Your task to perform on an android device: turn notification dots off Image 0: 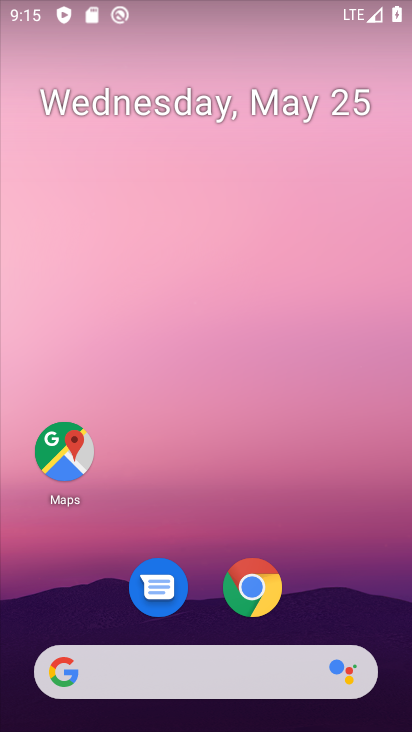
Step 0: drag from (186, 601) to (399, 671)
Your task to perform on an android device: turn notification dots off Image 1: 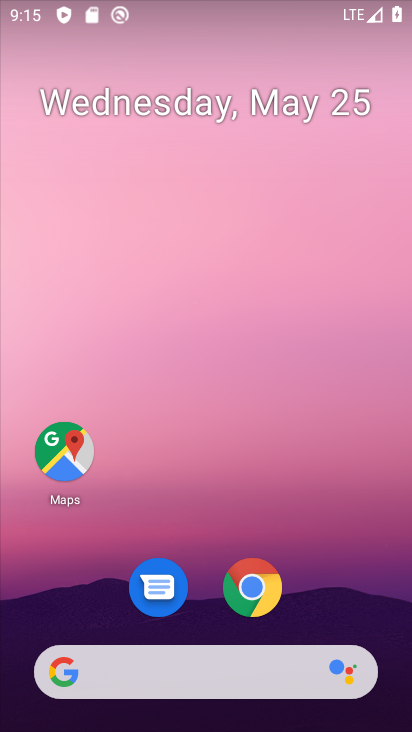
Step 1: drag from (200, 591) to (216, 53)
Your task to perform on an android device: turn notification dots off Image 2: 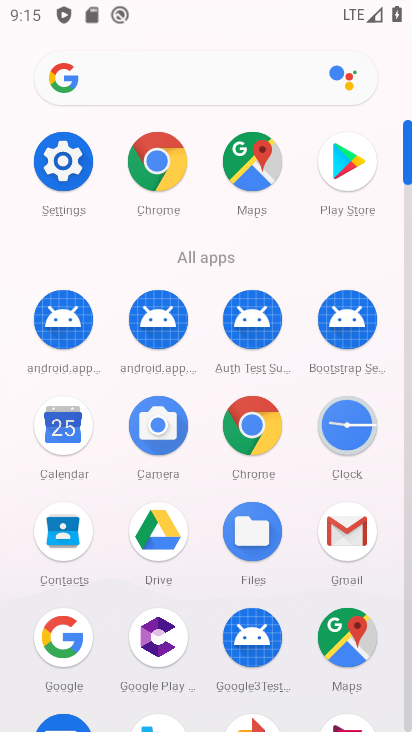
Step 2: click (51, 156)
Your task to perform on an android device: turn notification dots off Image 3: 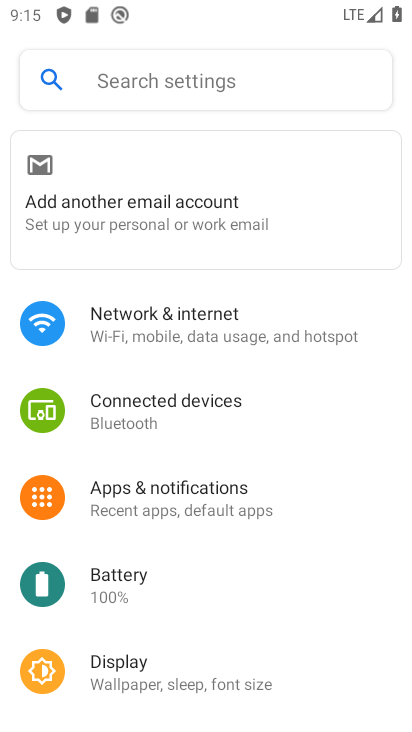
Step 3: click (201, 507)
Your task to perform on an android device: turn notification dots off Image 4: 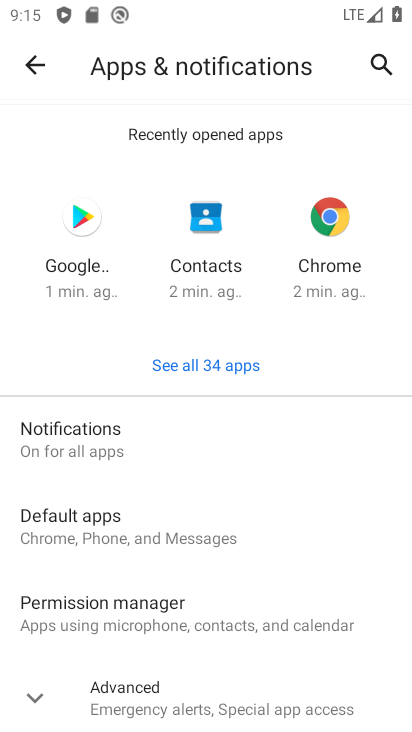
Step 4: drag from (237, 640) to (229, 428)
Your task to perform on an android device: turn notification dots off Image 5: 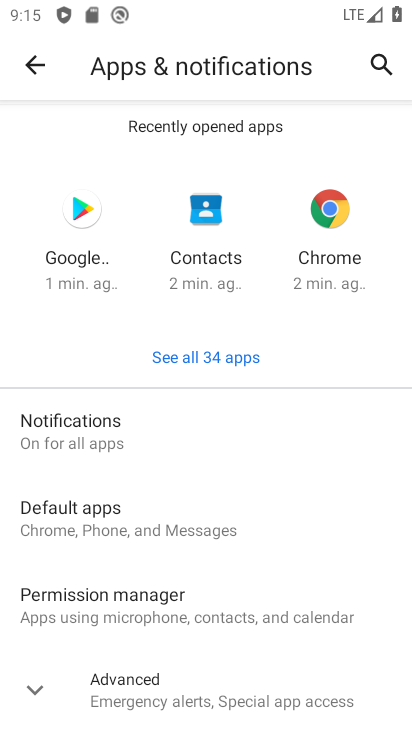
Step 5: click (132, 424)
Your task to perform on an android device: turn notification dots off Image 6: 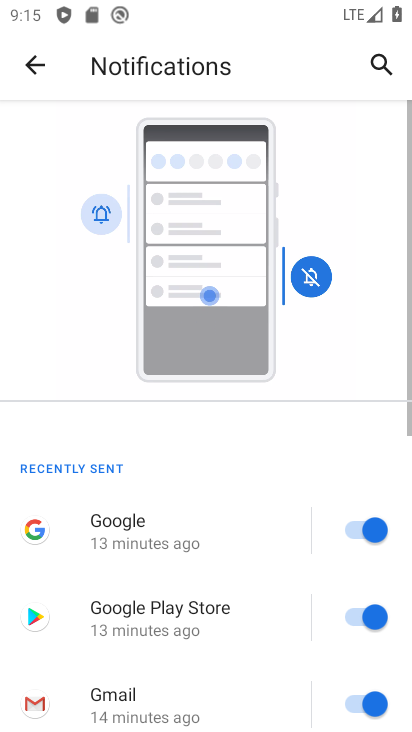
Step 6: drag from (156, 628) to (318, 95)
Your task to perform on an android device: turn notification dots off Image 7: 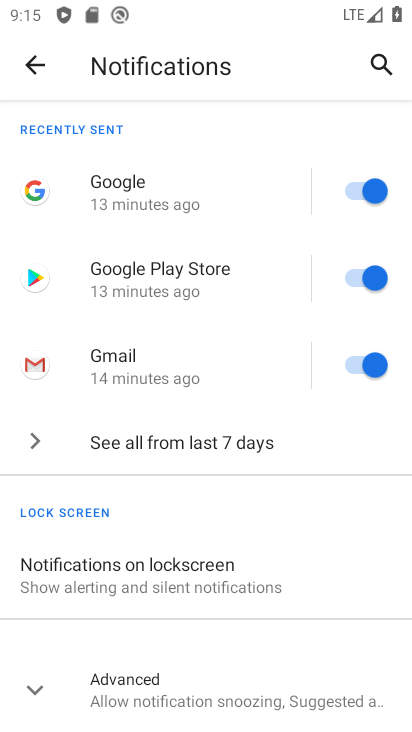
Step 7: click (166, 678)
Your task to perform on an android device: turn notification dots off Image 8: 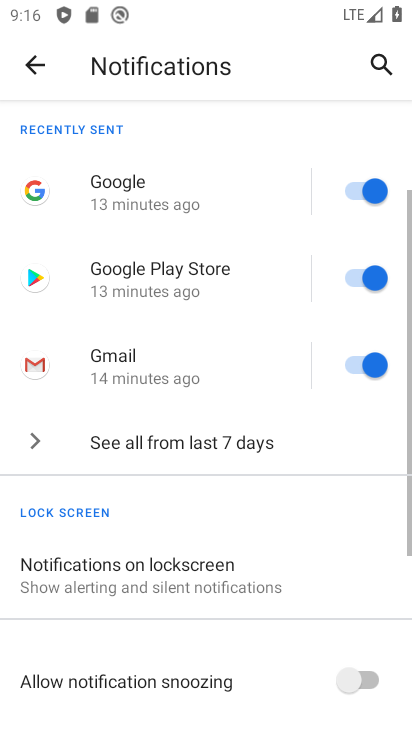
Step 8: task complete